Your task to perform on an android device: Open Google Chrome and click the shortcut for Amazon.com Image 0: 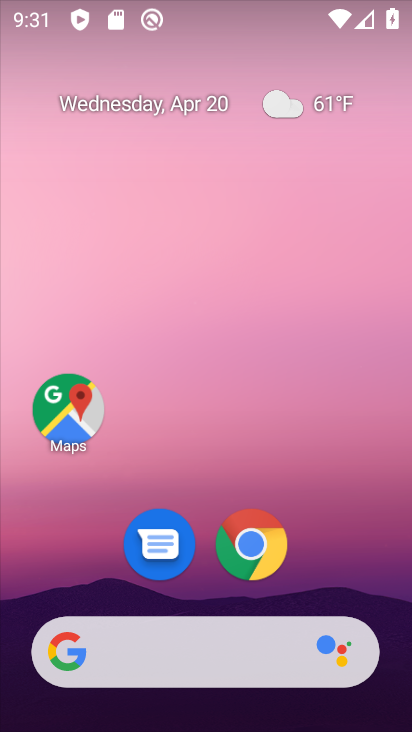
Step 0: click (271, 538)
Your task to perform on an android device: Open Google Chrome and click the shortcut for Amazon.com Image 1: 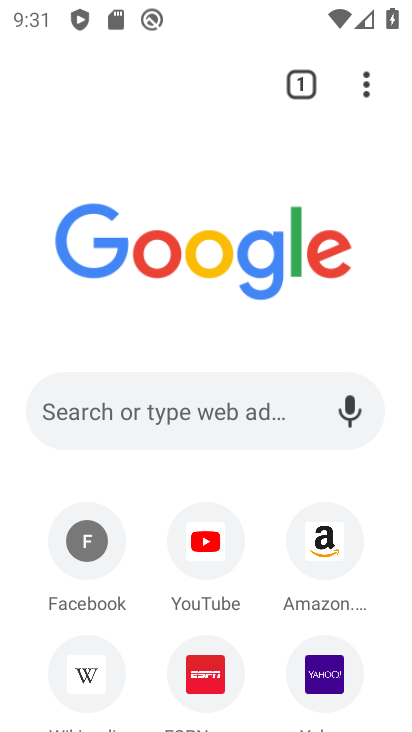
Step 1: click (326, 527)
Your task to perform on an android device: Open Google Chrome and click the shortcut for Amazon.com Image 2: 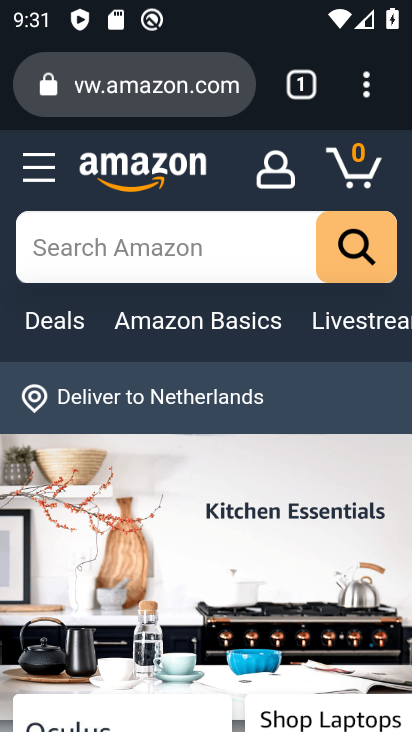
Step 2: task complete